Your task to perform on an android device: Open the Play Movies app and select the watchlist tab. Image 0: 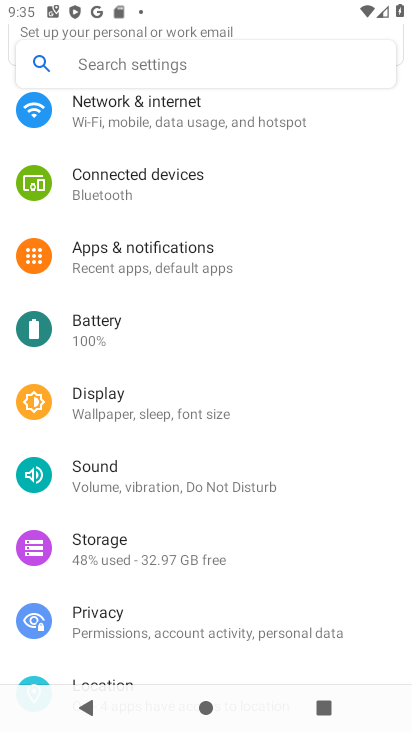
Step 0: press home button
Your task to perform on an android device: Open the Play Movies app and select the watchlist tab. Image 1: 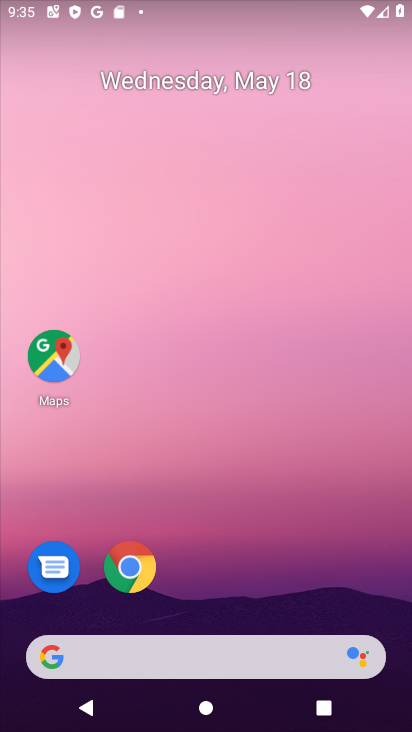
Step 1: drag from (219, 643) to (160, 116)
Your task to perform on an android device: Open the Play Movies app and select the watchlist tab. Image 2: 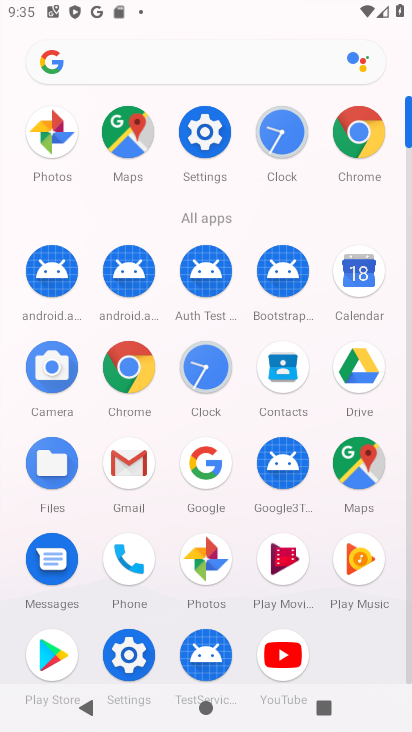
Step 2: click (286, 565)
Your task to perform on an android device: Open the Play Movies app and select the watchlist tab. Image 3: 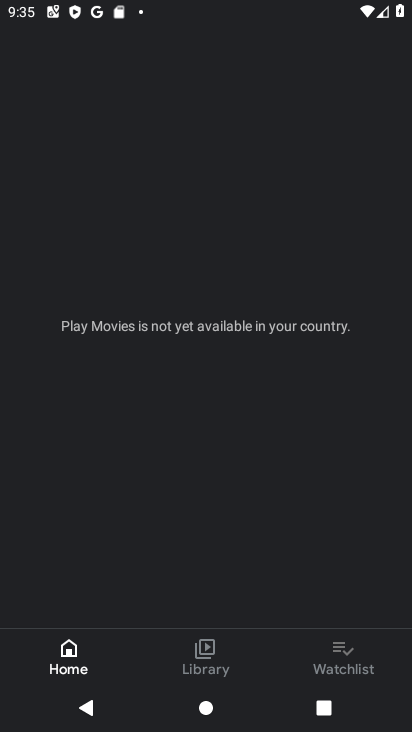
Step 3: click (336, 652)
Your task to perform on an android device: Open the Play Movies app and select the watchlist tab. Image 4: 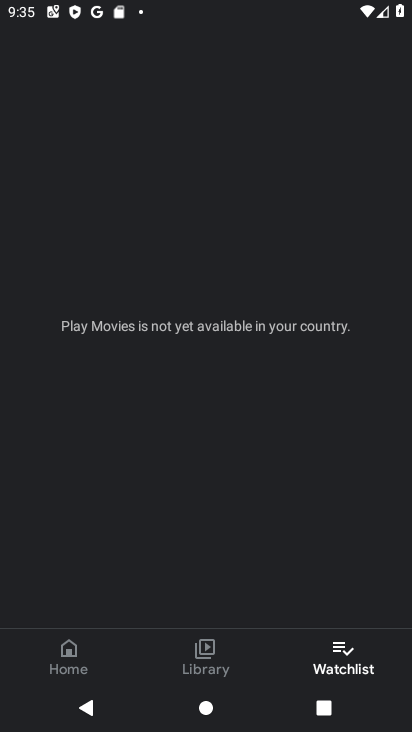
Step 4: task complete